Your task to perform on an android device: What's on my calendar today? Image 0: 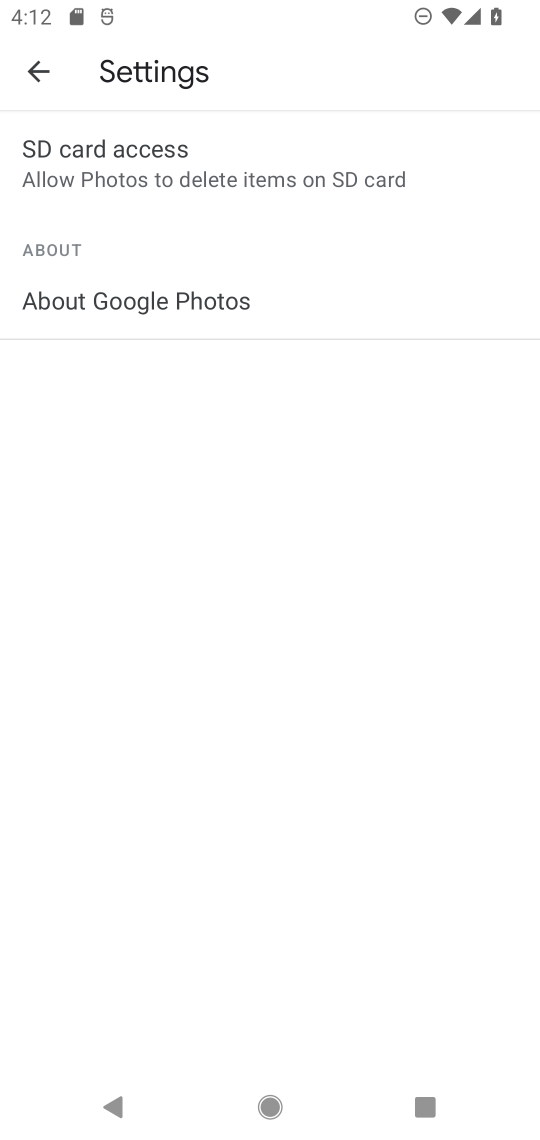
Step 0: press home button
Your task to perform on an android device: What's on my calendar today? Image 1: 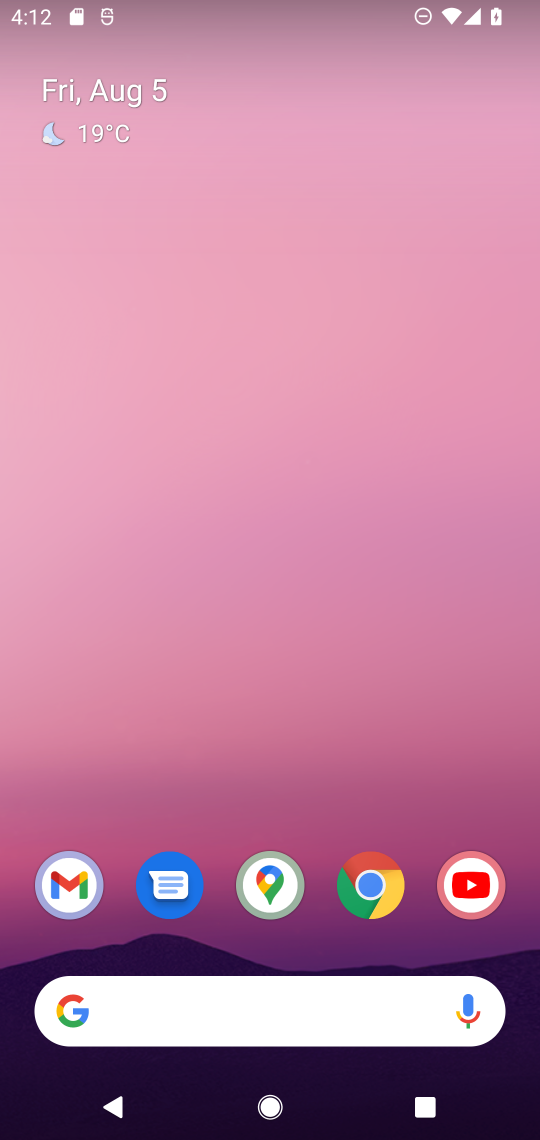
Step 1: drag from (319, 974) to (314, 410)
Your task to perform on an android device: What's on my calendar today? Image 2: 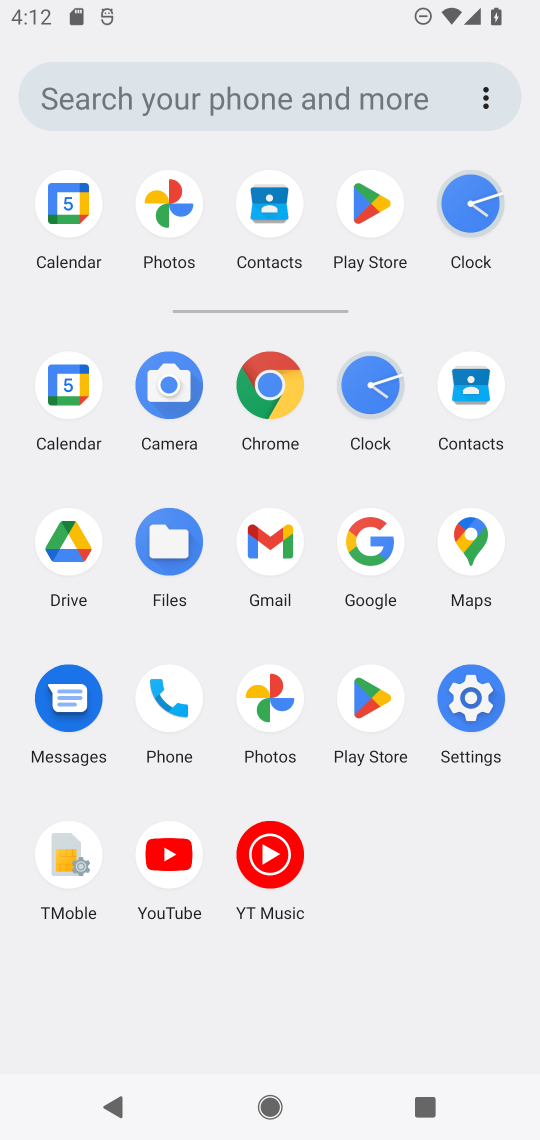
Step 2: click (70, 400)
Your task to perform on an android device: What's on my calendar today? Image 3: 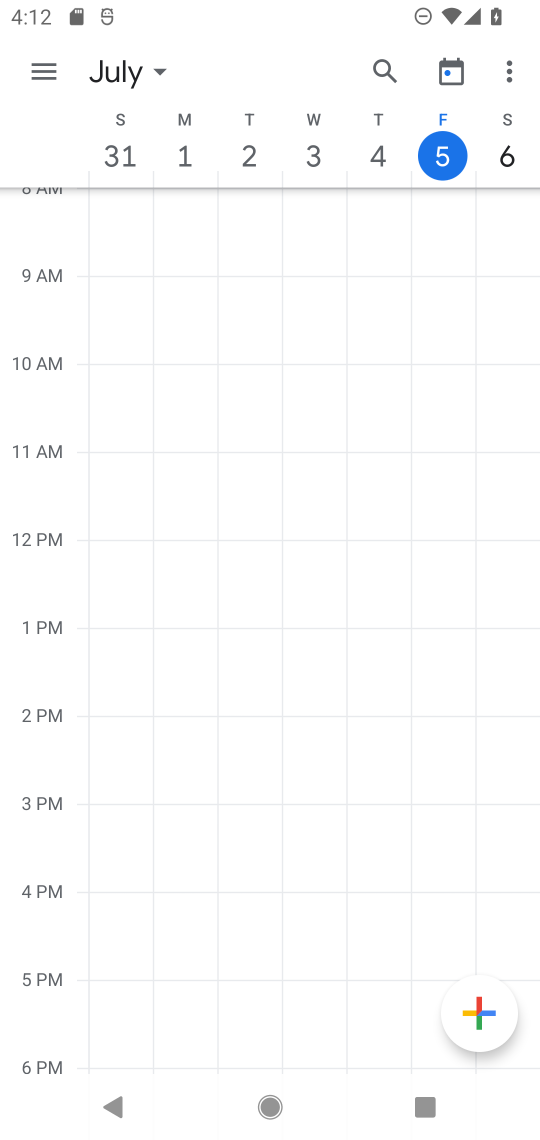
Step 3: click (163, 72)
Your task to perform on an android device: What's on my calendar today? Image 4: 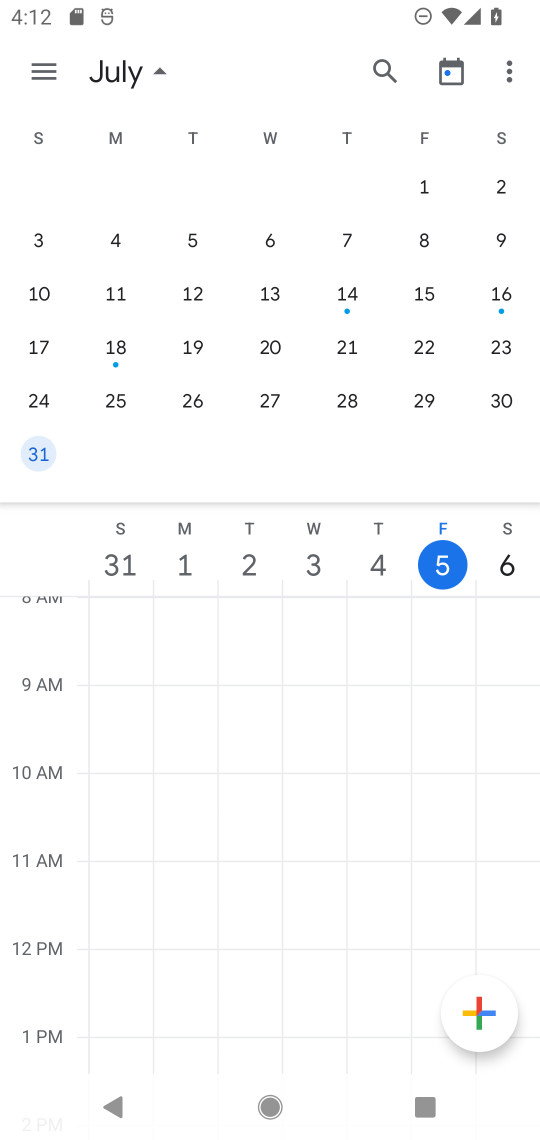
Step 4: drag from (433, 286) to (3, 276)
Your task to perform on an android device: What's on my calendar today? Image 5: 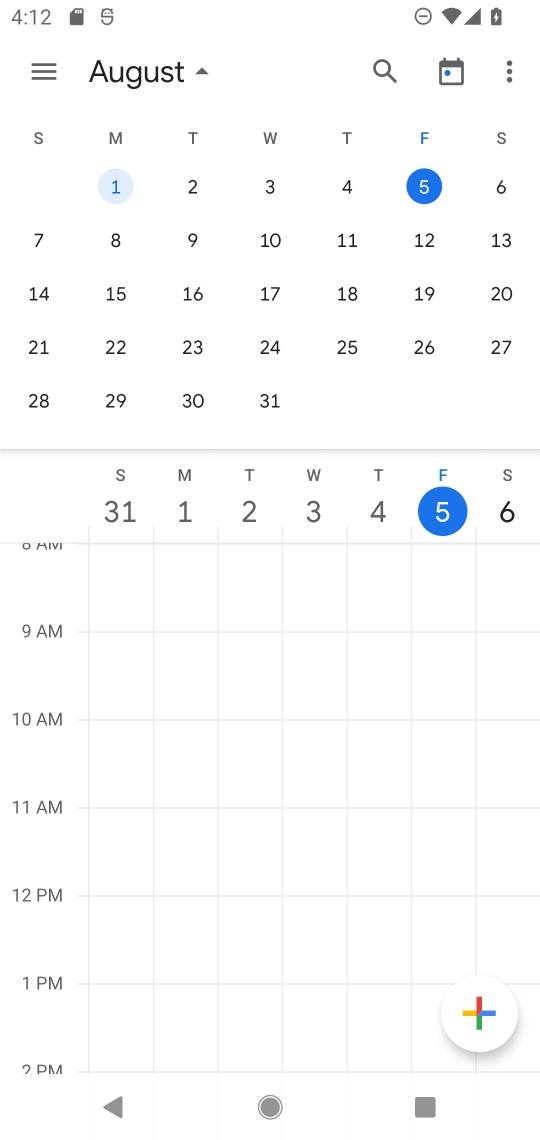
Step 5: click (424, 191)
Your task to perform on an android device: What's on my calendar today? Image 6: 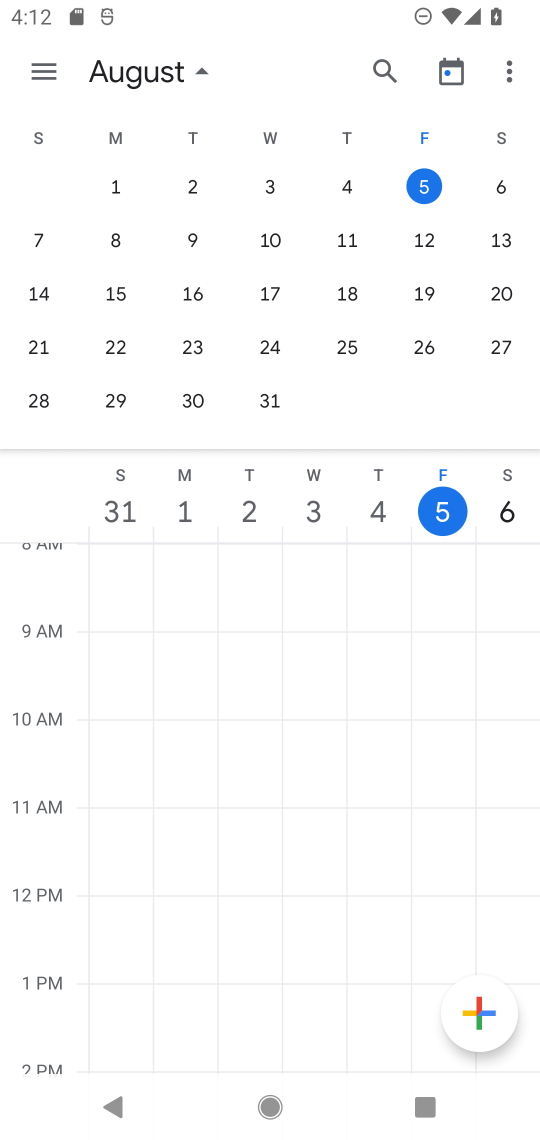
Step 6: click (439, 508)
Your task to perform on an android device: What's on my calendar today? Image 7: 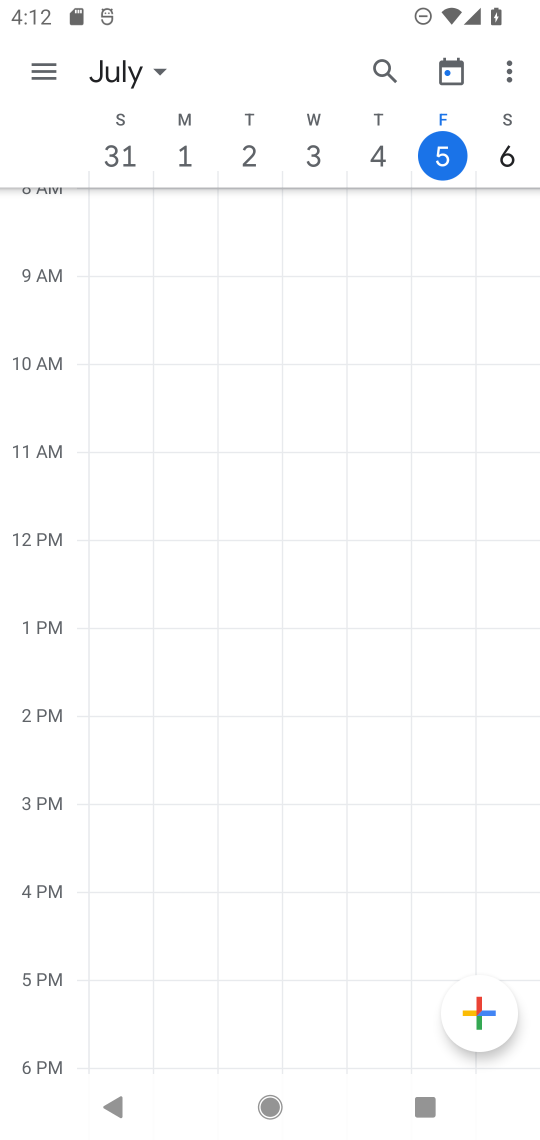
Step 7: task complete